Your task to perform on an android device: toggle notifications settings in the gmail app Image 0: 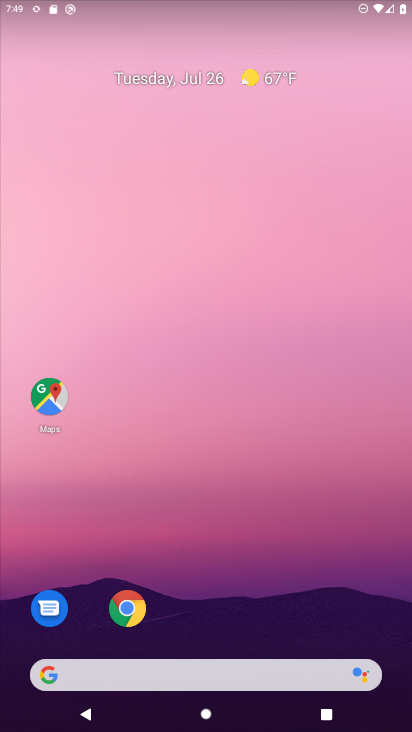
Step 0: drag from (211, 592) to (218, 28)
Your task to perform on an android device: toggle notifications settings in the gmail app Image 1: 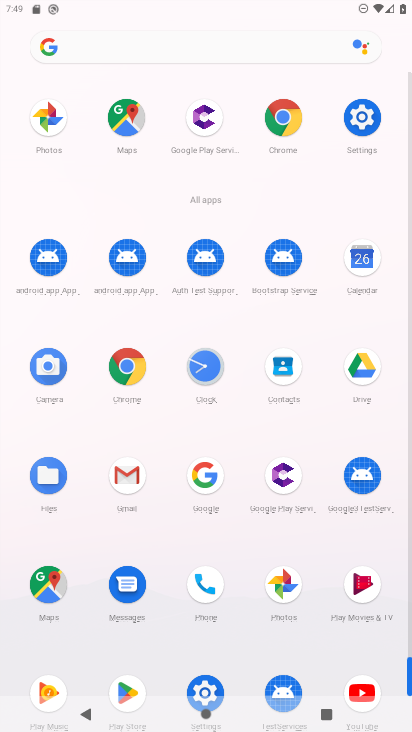
Step 1: click (129, 498)
Your task to perform on an android device: toggle notifications settings in the gmail app Image 2: 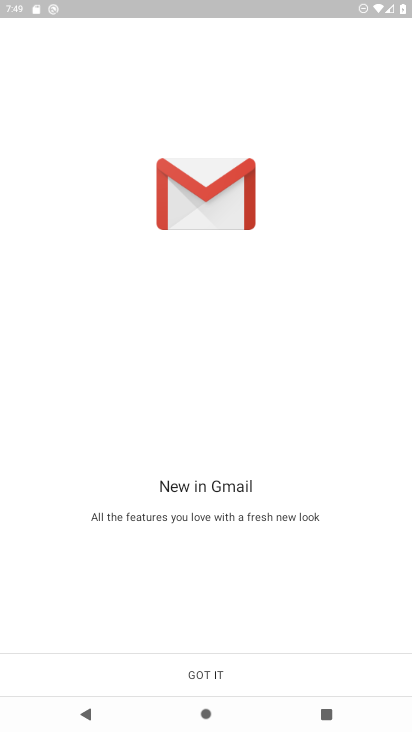
Step 2: click (223, 670)
Your task to perform on an android device: toggle notifications settings in the gmail app Image 3: 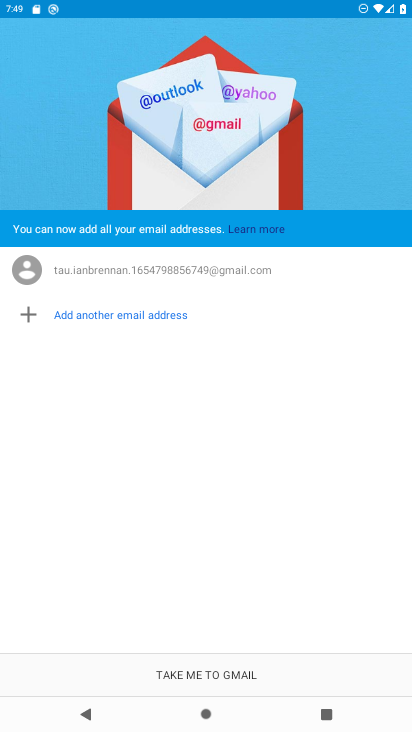
Step 3: click (225, 669)
Your task to perform on an android device: toggle notifications settings in the gmail app Image 4: 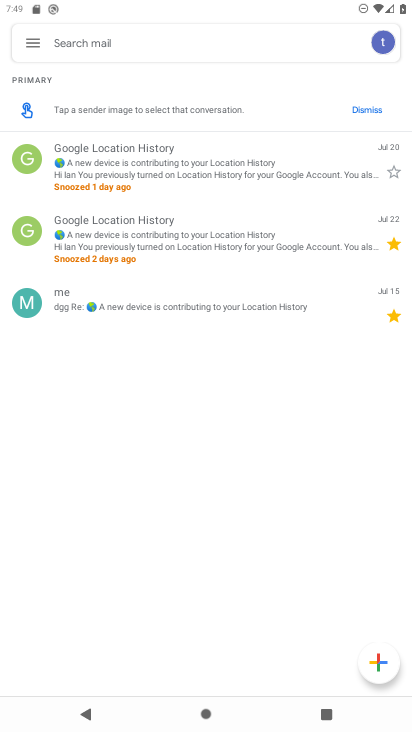
Step 4: click (27, 43)
Your task to perform on an android device: toggle notifications settings in the gmail app Image 5: 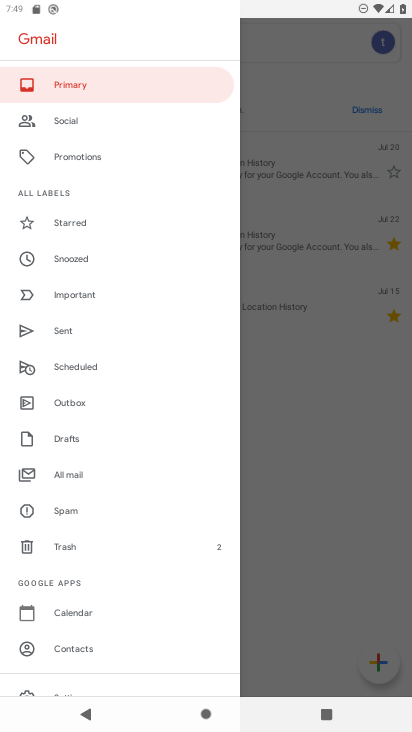
Step 5: drag from (105, 632) to (108, 263)
Your task to perform on an android device: toggle notifications settings in the gmail app Image 6: 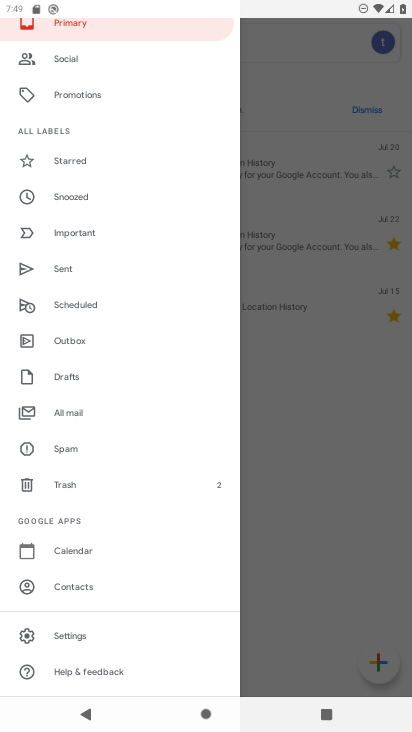
Step 6: click (61, 630)
Your task to perform on an android device: toggle notifications settings in the gmail app Image 7: 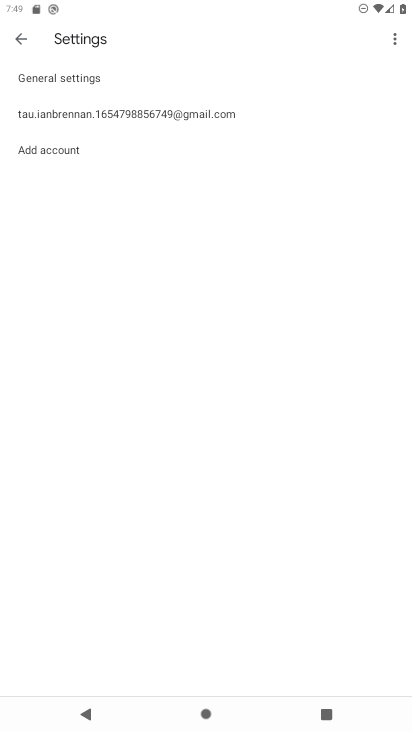
Step 7: click (97, 74)
Your task to perform on an android device: toggle notifications settings in the gmail app Image 8: 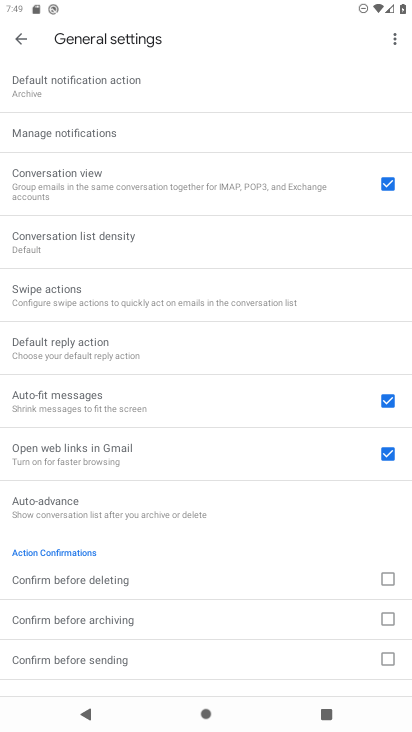
Step 8: click (68, 136)
Your task to perform on an android device: toggle notifications settings in the gmail app Image 9: 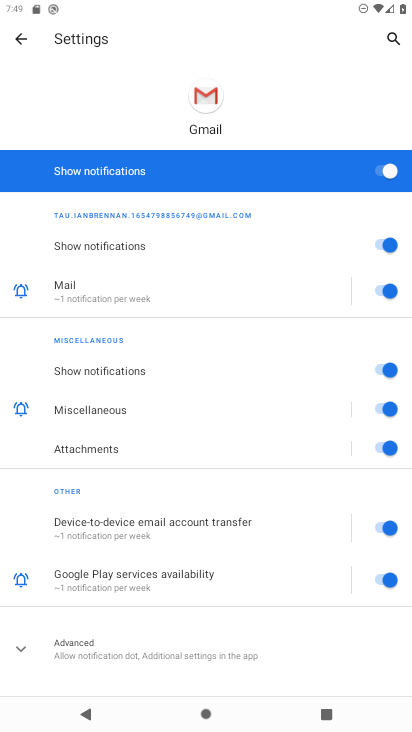
Step 9: click (355, 166)
Your task to perform on an android device: toggle notifications settings in the gmail app Image 10: 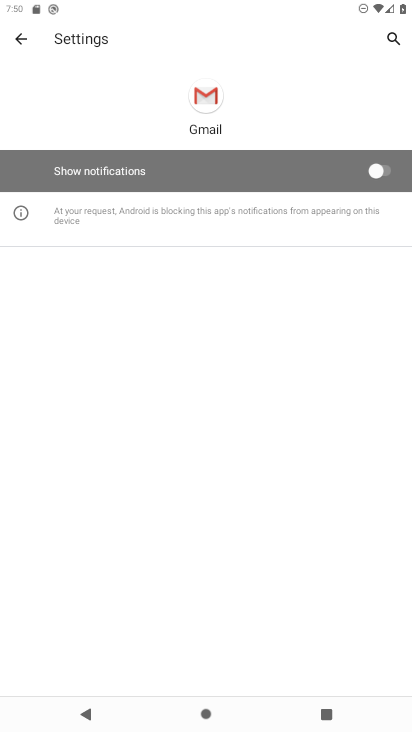
Step 10: task complete